Your task to perform on an android device: Show the shopping cart on target. Search for usb-c to usb-b on target, select the first entry, add it to the cart, then select checkout. Image 0: 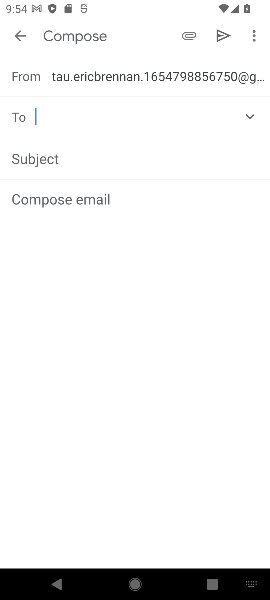
Step 0: press home button
Your task to perform on an android device: Show the shopping cart on target. Search for usb-c to usb-b on target, select the first entry, add it to the cart, then select checkout. Image 1: 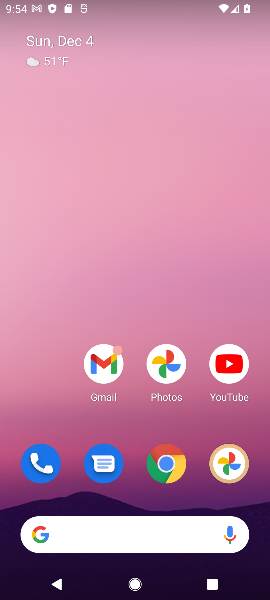
Step 1: click (128, 538)
Your task to perform on an android device: Show the shopping cart on target. Search for usb-c to usb-b on target, select the first entry, add it to the cart, then select checkout. Image 2: 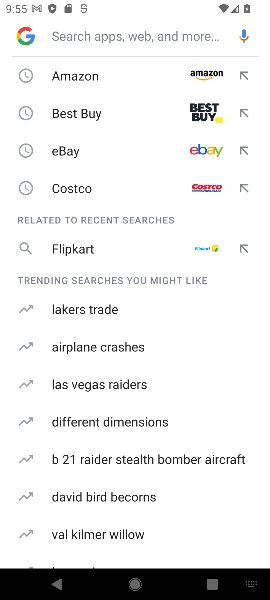
Step 2: type "target"
Your task to perform on an android device: Show the shopping cart on target. Search for usb-c to usb-b on target, select the first entry, add it to the cart, then select checkout. Image 3: 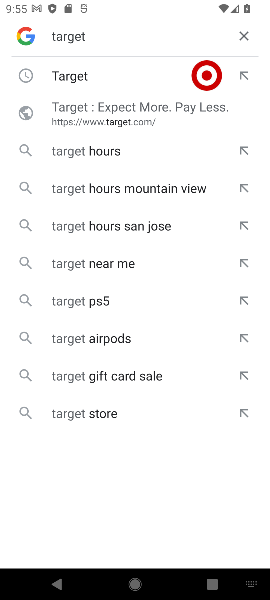
Step 3: click (84, 114)
Your task to perform on an android device: Show the shopping cart on target. Search for usb-c to usb-b on target, select the first entry, add it to the cart, then select checkout. Image 4: 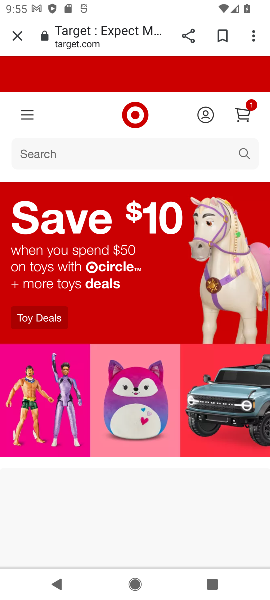
Step 4: task complete